Your task to perform on an android device: Open the Play Movies app and select the watchlist tab. Image 0: 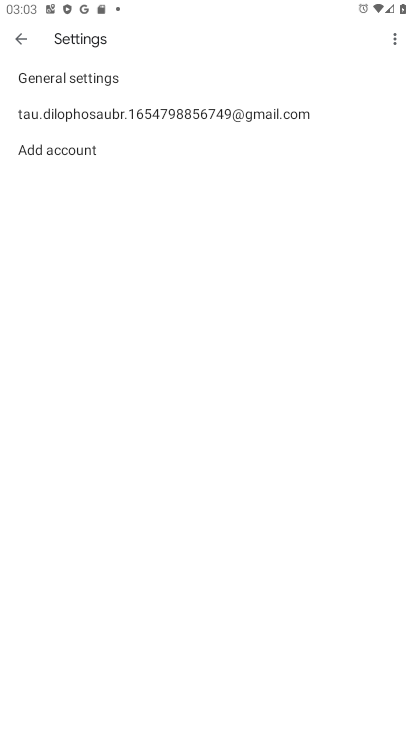
Step 0: press home button
Your task to perform on an android device: Open the Play Movies app and select the watchlist tab. Image 1: 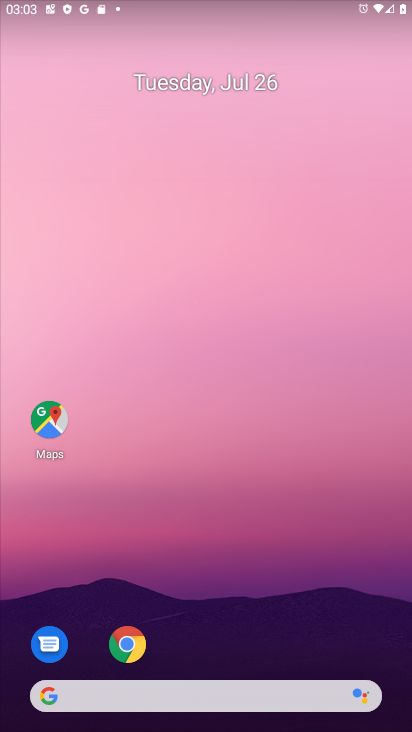
Step 1: drag from (207, 658) to (101, 199)
Your task to perform on an android device: Open the Play Movies app and select the watchlist tab. Image 2: 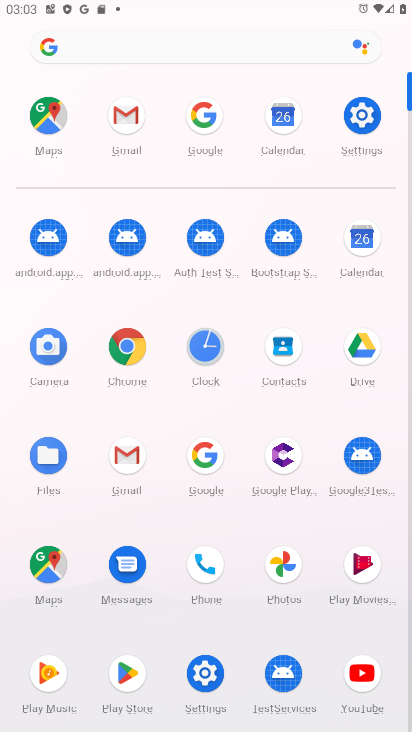
Step 2: click (350, 548)
Your task to perform on an android device: Open the Play Movies app and select the watchlist tab. Image 3: 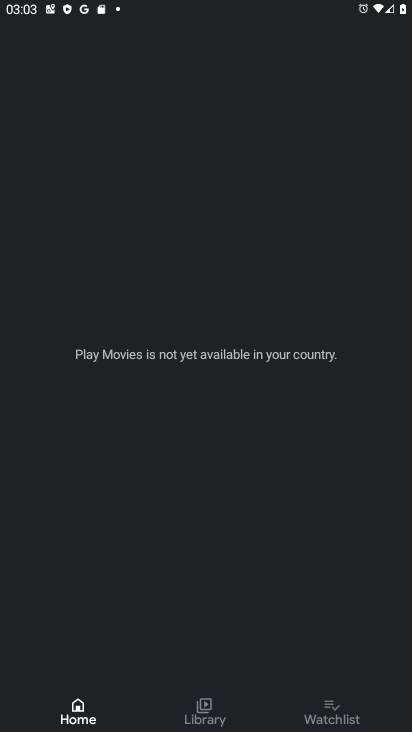
Step 3: click (328, 713)
Your task to perform on an android device: Open the Play Movies app and select the watchlist tab. Image 4: 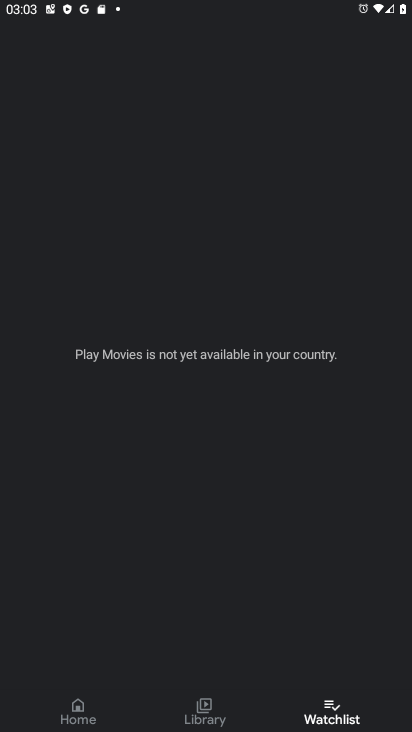
Step 4: task complete